Your task to perform on an android device: change notifications settings Image 0: 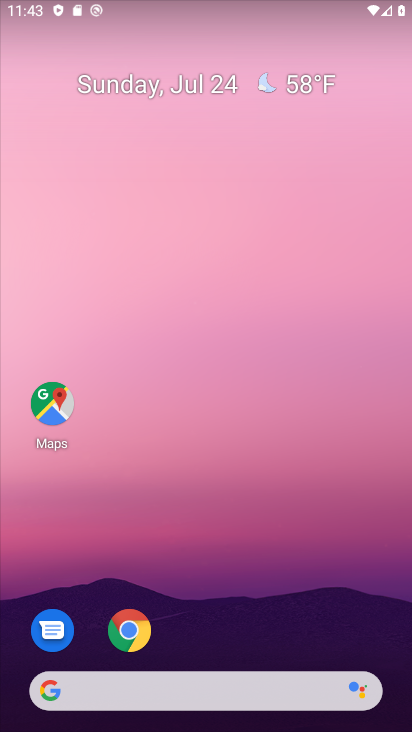
Step 0: drag from (257, 636) to (184, 194)
Your task to perform on an android device: change notifications settings Image 1: 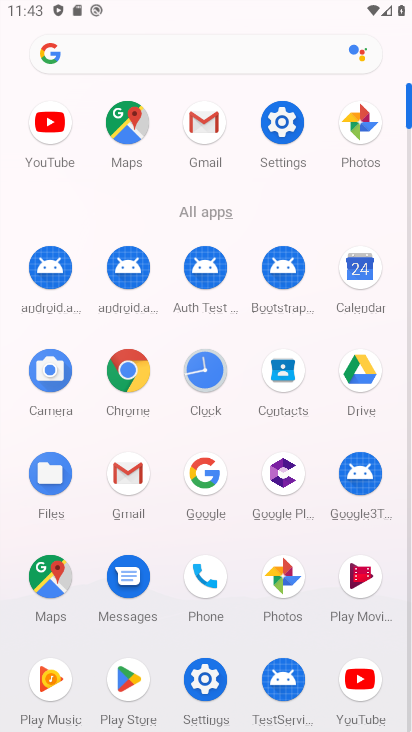
Step 1: click (291, 134)
Your task to perform on an android device: change notifications settings Image 2: 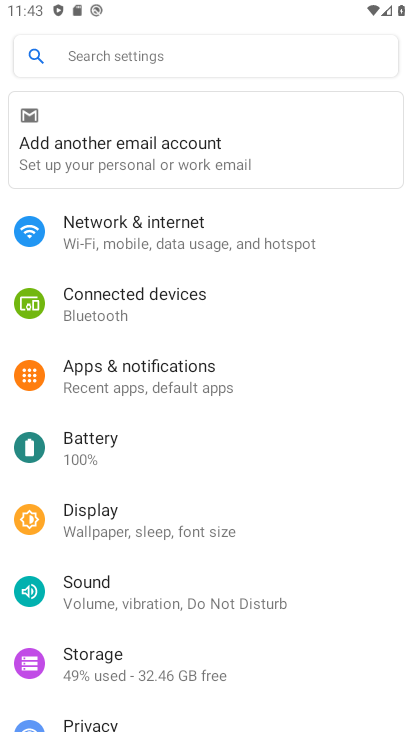
Step 2: click (182, 369)
Your task to perform on an android device: change notifications settings Image 3: 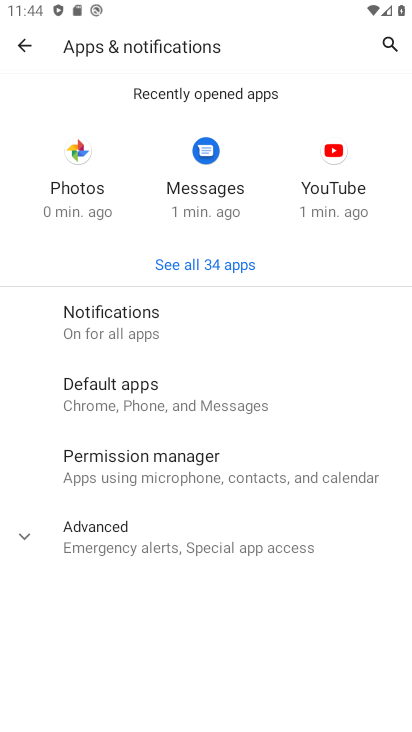
Step 3: click (165, 333)
Your task to perform on an android device: change notifications settings Image 4: 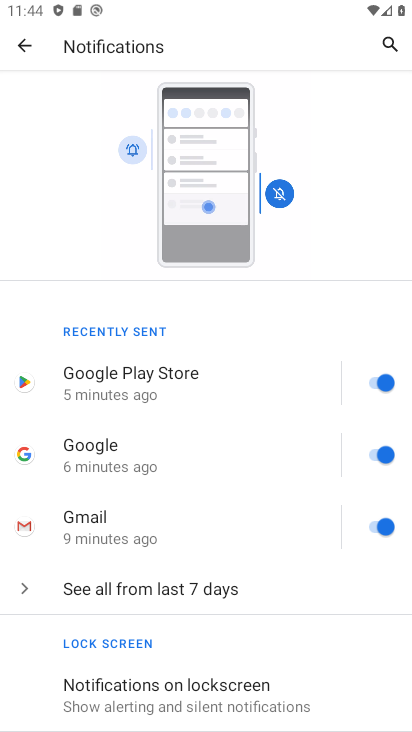
Step 4: drag from (264, 685) to (228, 236)
Your task to perform on an android device: change notifications settings Image 5: 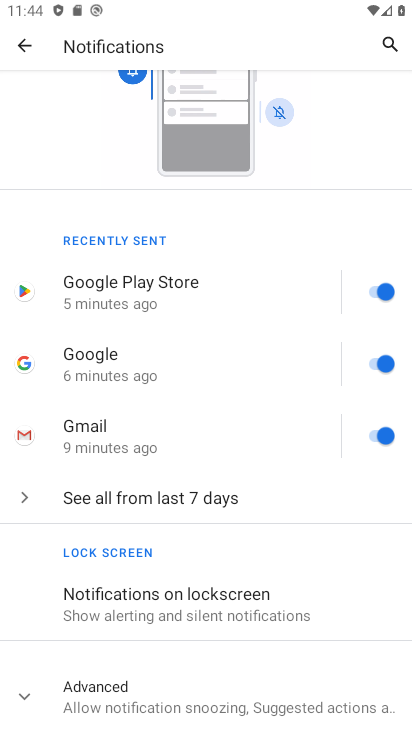
Step 5: click (258, 709)
Your task to perform on an android device: change notifications settings Image 6: 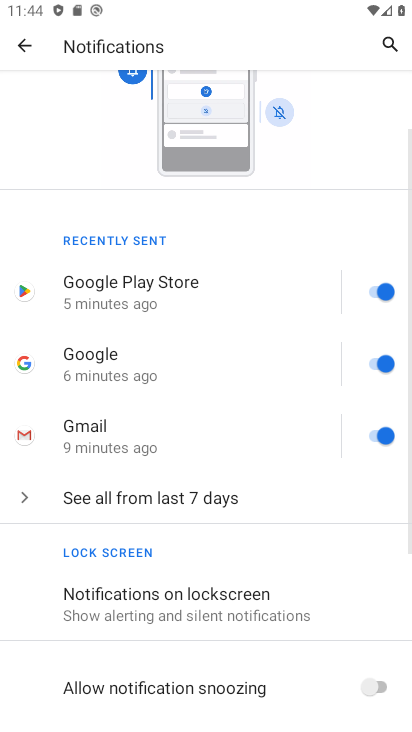
Step 6: drag from (218, 389) to (208, 226)
Your task to perform on an android device: change notifications settings Image 7: 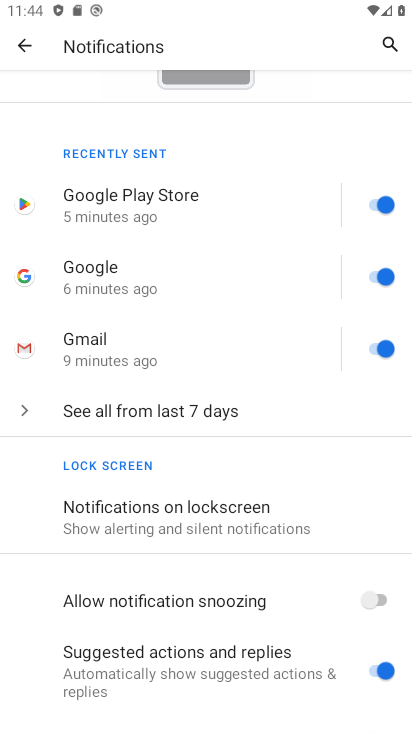
Step 7: drag from (259, 680) to (217, 322)
Your task to perform on an android device: change notifications settings Image 8: 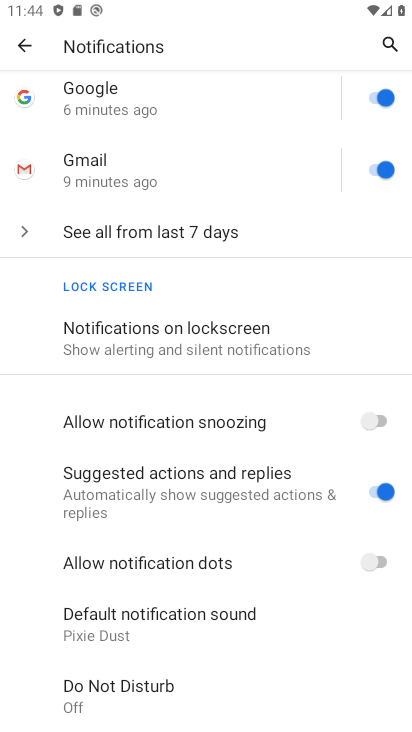
Step 8: click (381, 570)
Your task to perform on an android device: change notifications settings Image 9: 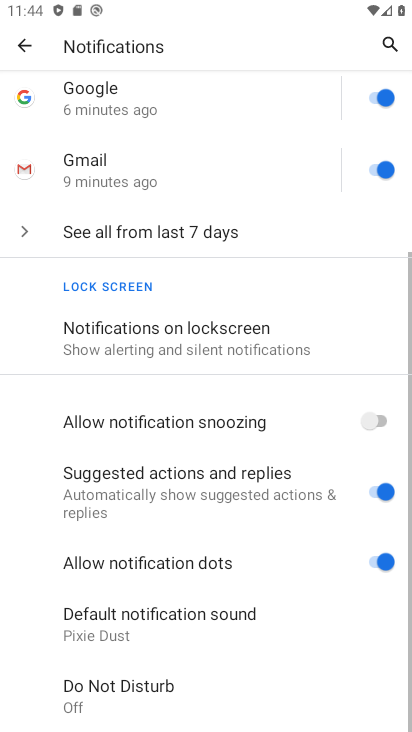
Step 9: click (372, 429)
Your task to perform on an android device: change notifications settings Image 10: 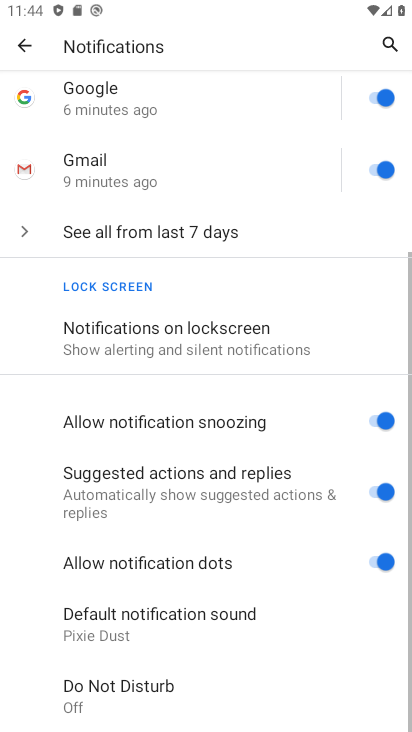
Step 10: click (379, 488)
Your task to perform on an android device: change notifications settings Image 11: 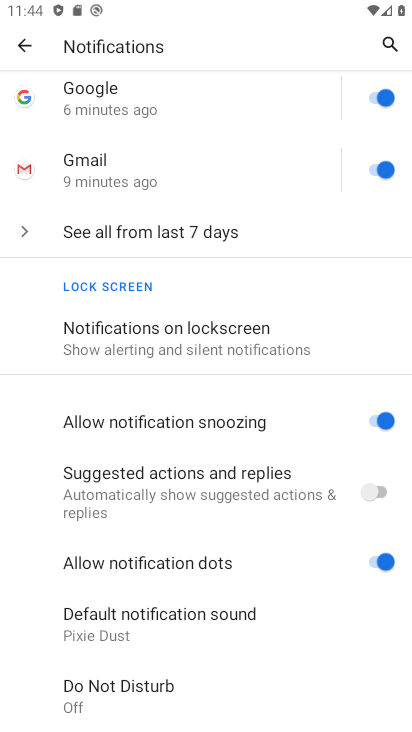
Step 11: task complete